Your task to perform on an android device: Open Yahoo.com Image 0: 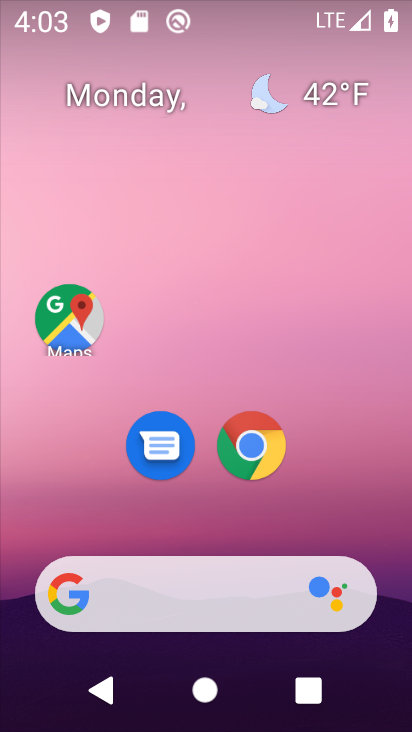
Step 0: drag from (8, 494) to (229, 23)
Your task to perform on an android device: Open Yahoo.com Image 1: 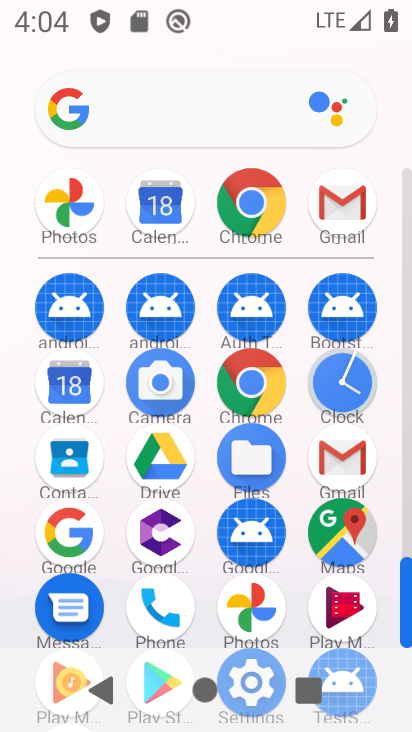
Step 1: click (247, 384)
Your task to perform on an android device: Open Yahoo.com Image 2: 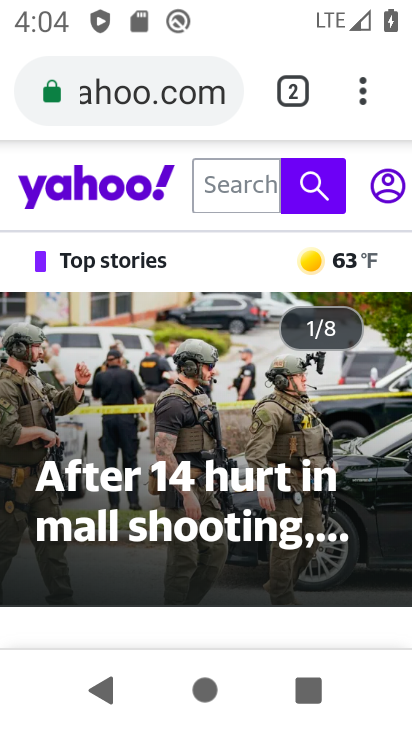
Step 2: task complete